Your task to perform on an android device: open app "Instagram" (install if not already installed) and enter user name: "nobler@yahoo.com" and password: "foraging" Image 0: 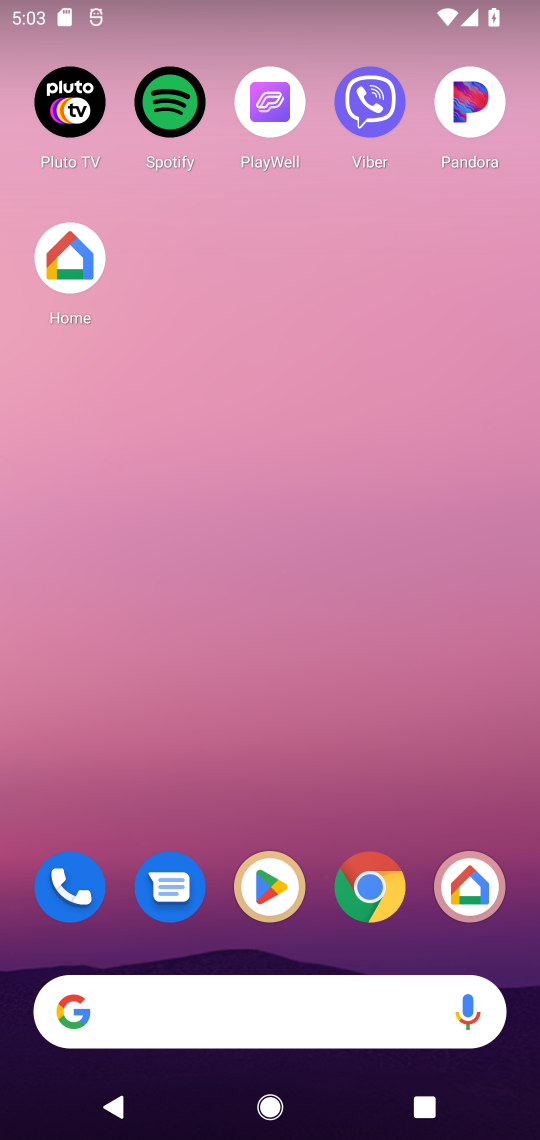
Step 0: click (263, 890)
Your task to perform on an android device: open app "Instagram" (install if not already installed) and enter user name: "nobler@yahoo.com" and password: "foraging" Image 1: 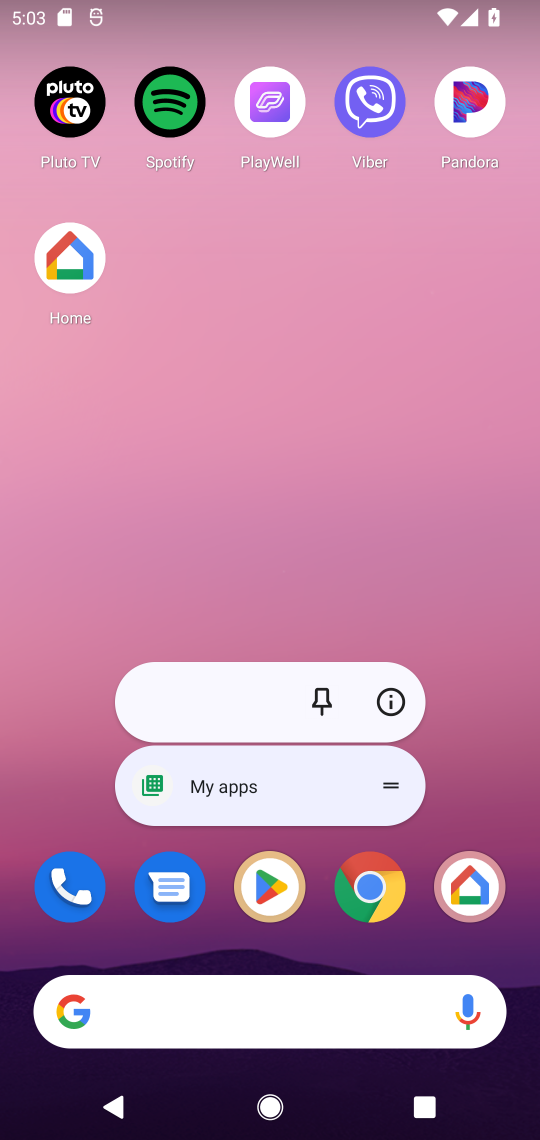
Step 1: click (263, 890)
Your task to perform on an android device: open app "Instagram" (install if not already installed) and enter user name: "nobler@yahoo.com" and password: "foraging" Image 2: 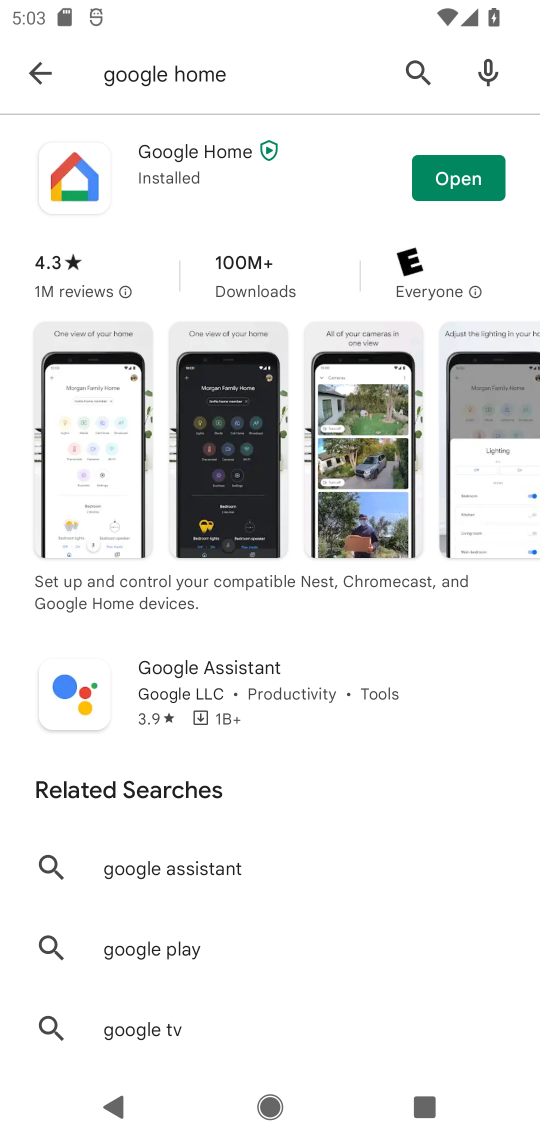
Step 2: click (421, 71)
Your task to perform on an android device: open app "Instagram" (install if not already installed) and enter user name: "nobler@yahoo.com" and password: "foraging" Image 3: 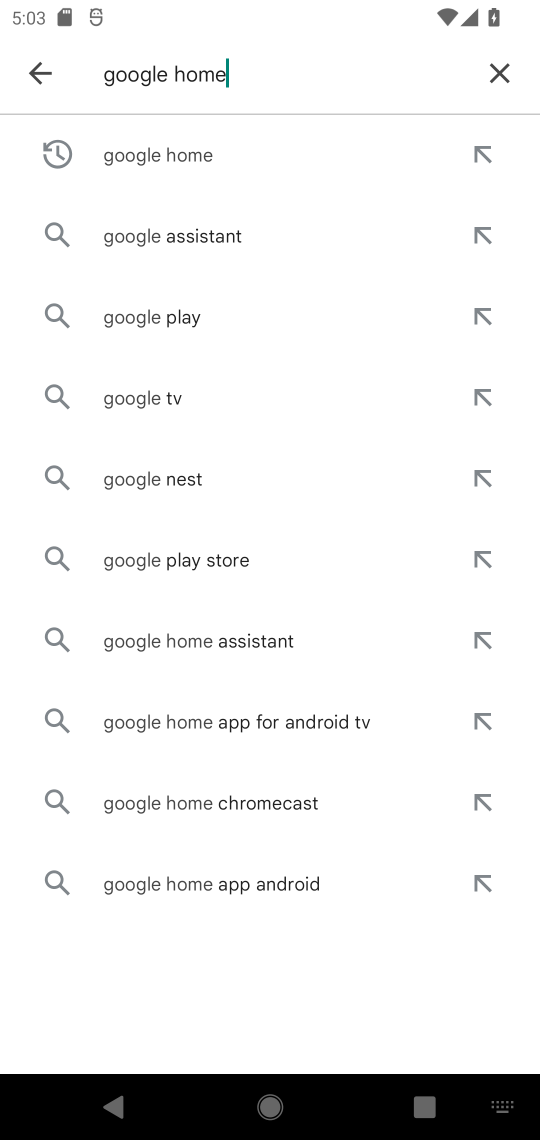
Step 3: click (497, 75)
Your task to perform on an android device: open app "Instagram" (install if not already installed) and enter user name: "nobler@yahoo.com" and password: "foraging" Image 4: 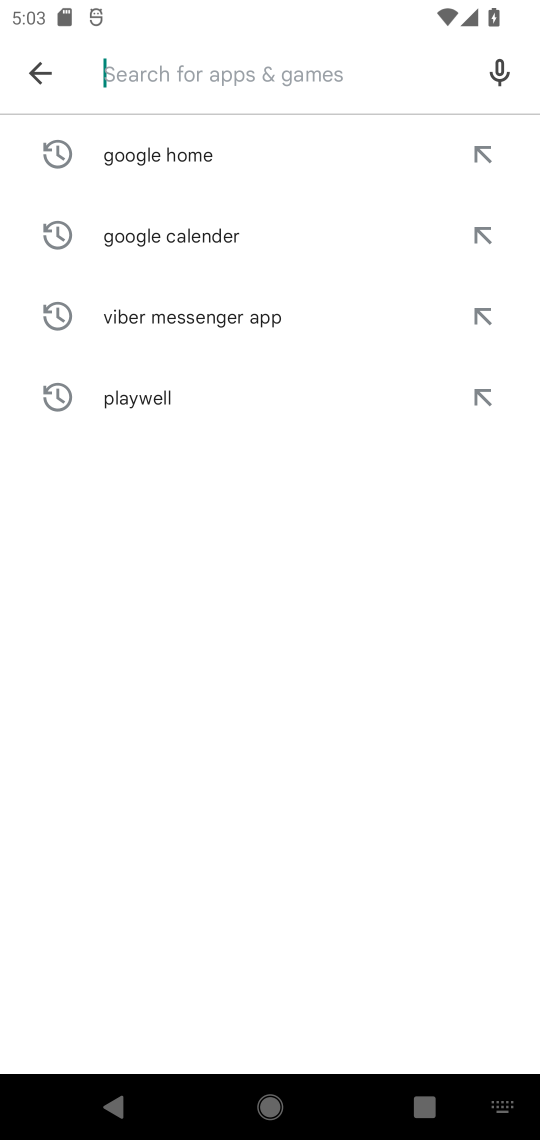
Step 4: type "Instagram"
Your task to perform on an android device: open app "Instagram" (install if not already installed) and enter user name: "nobler@yahoo.com" and password: "foraging" Image 5: 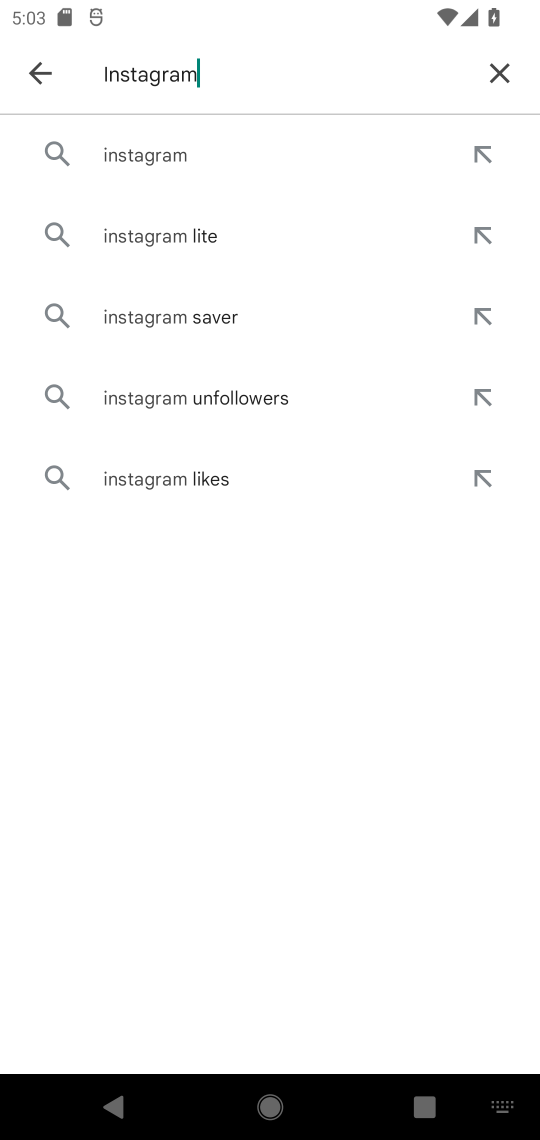
Step 5: click (170, 157)
Your task to perform on an android device: open app "Instagram" (install if not already installed) and enter user name: "nobler@yahoo.com" and password: "foraging" Image 6: 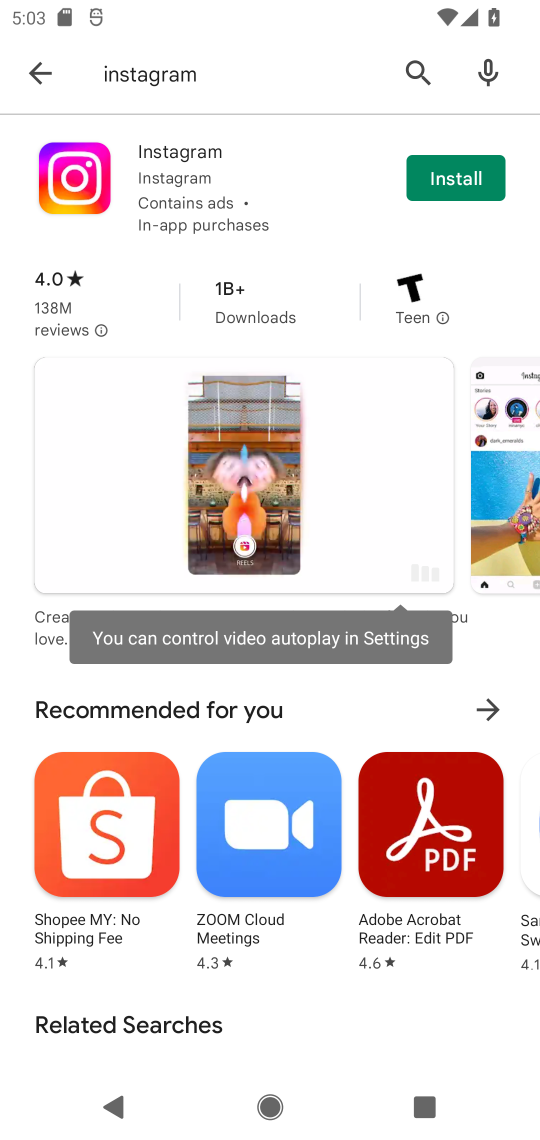
Step 6: click (458, 181)
Your task to perform on an android device: open app "Instagram" (install if not already installed) and enter user name: "nobler@yahoo.com" and password: "foraging" Image 7: 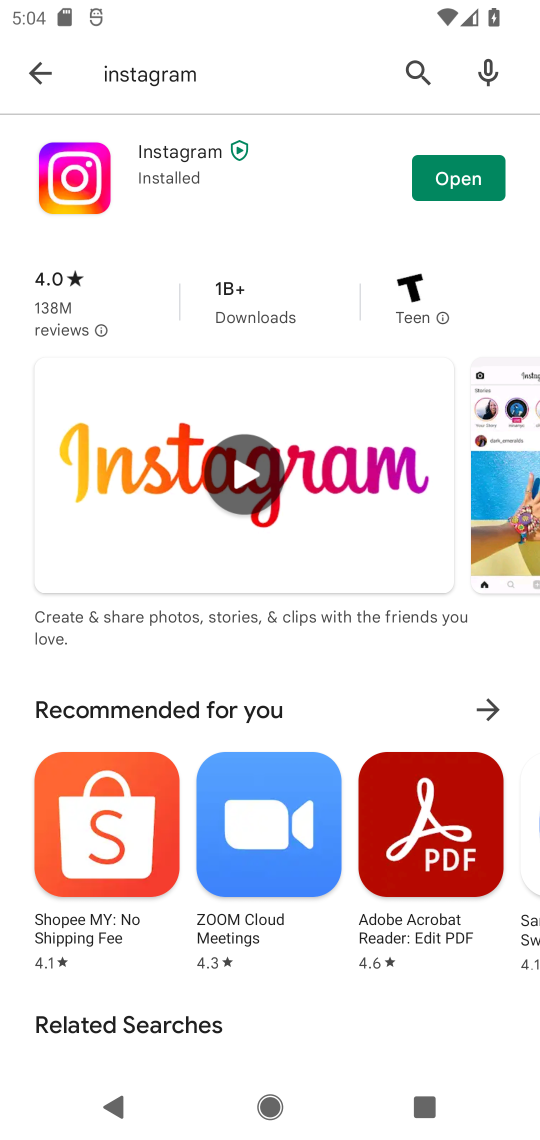
Step 7: click (458, 181)
Your task to perform on an android device: open app "Instagram" (install if not already installed) and enter user name: "nobler@yahoo.com" and password: "foraging" Image 8: 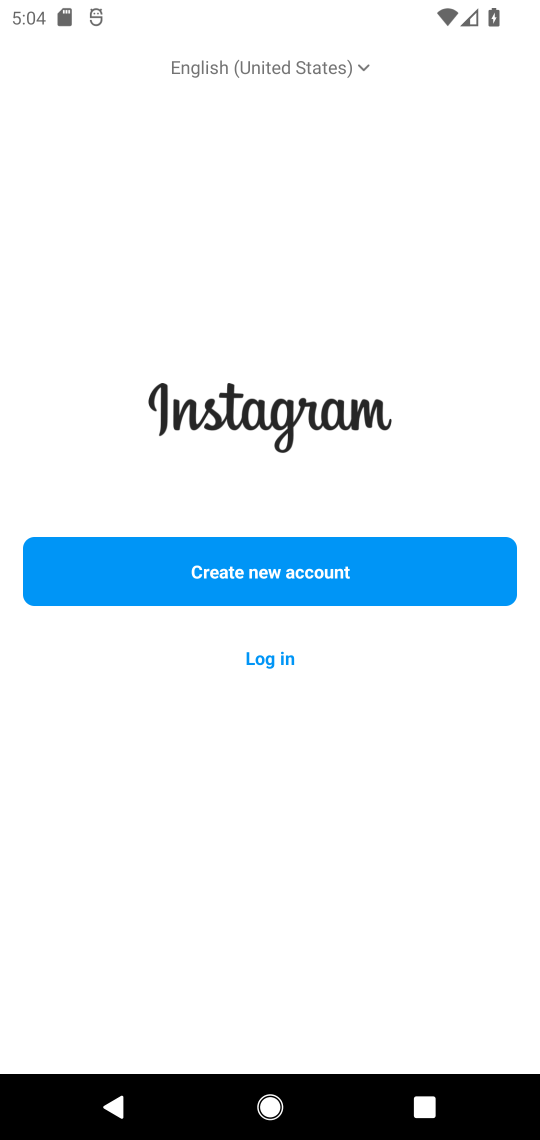
Step 8: click (271, 653)
Your task to perform on an android device: open app "Instagram" (install if not already installed) and enter user name: "nobler@yahoo.com" and password: "foraging" Image 9: 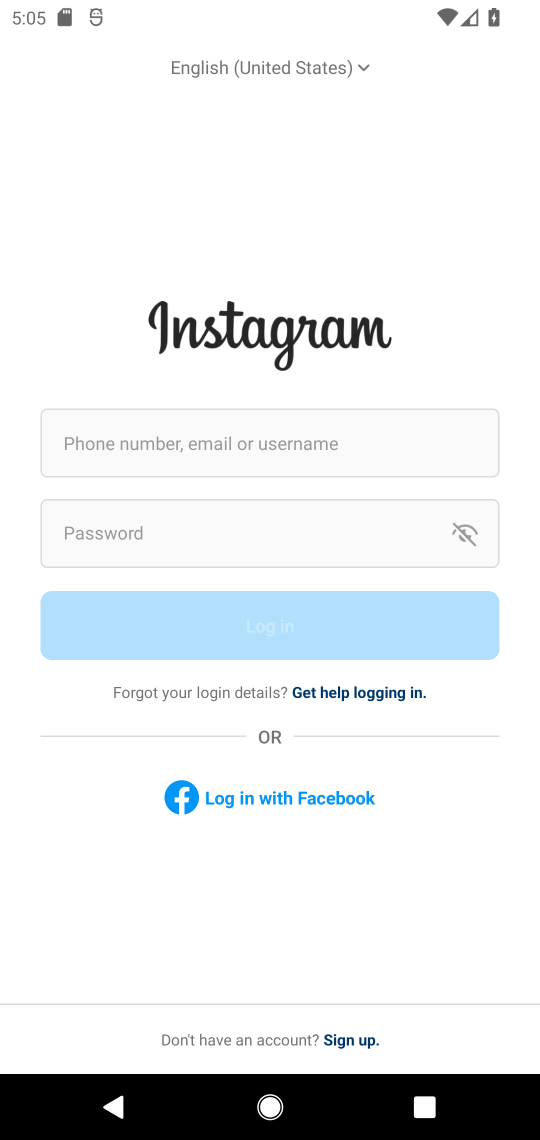
Step 9: click (311, 457)
Your task to perform on an android device: open app "Instagram" (install if not already installed) and enter user name: "nobler@yahoo.com" and password: "foraging" Image 10: 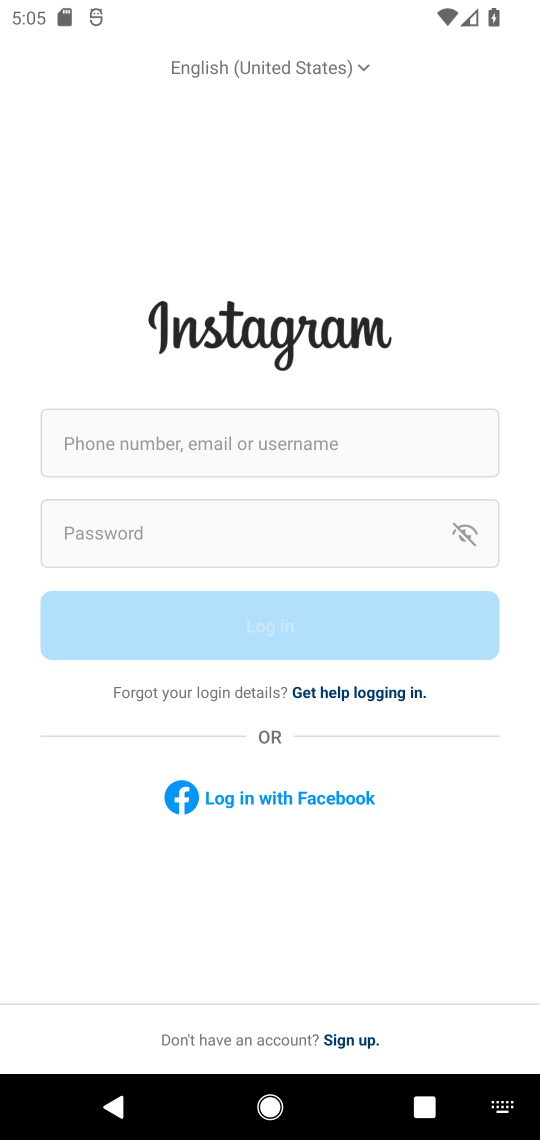
Step 10: type "nobler@yahoo.com"
Your task to perform on an android device: open app "Instagram" (install if not already installed) and enter user name: "nobler@yahoo.com" and password: "foraging" Image 11: 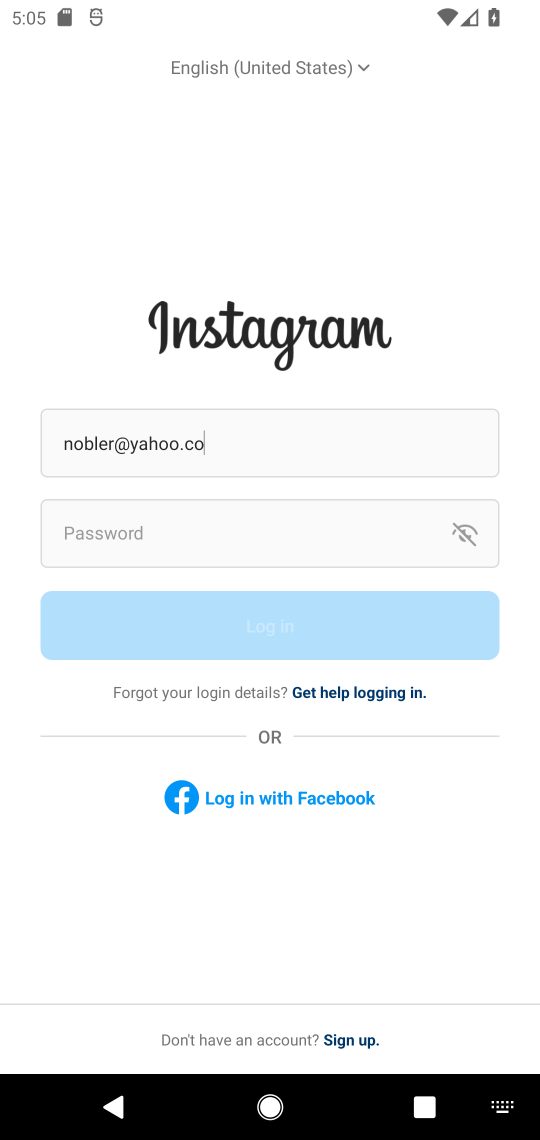
Step 11: type ""
Your task to perform on an android device: open app "Instagram" (install if not already installed) and enter user name: "nobler@yahoo.com" and password: "foraging" Image 12: 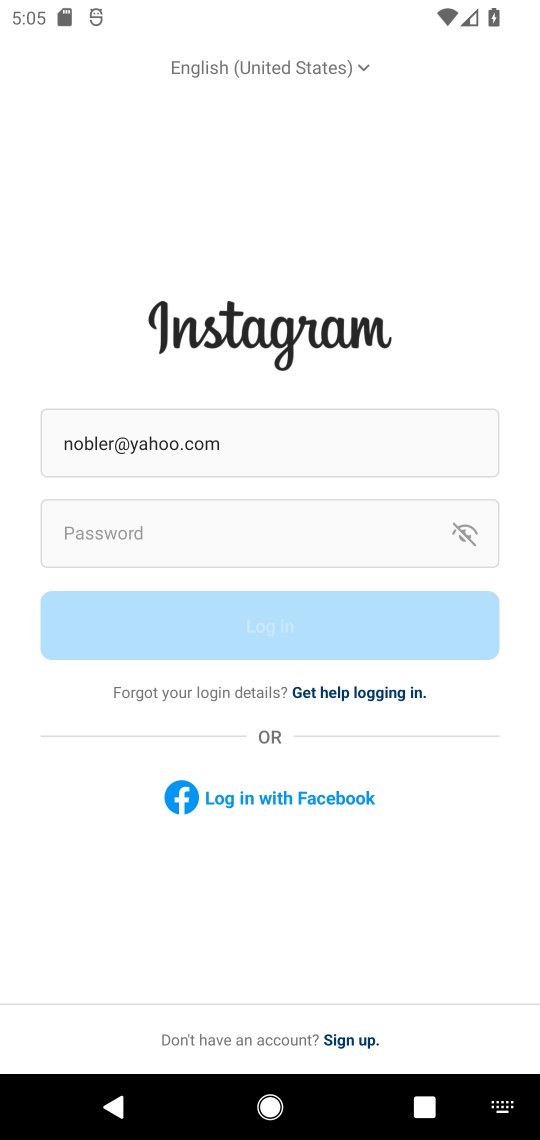
Step 12: click (192, 532)
Your task to perform on an android device: open app "Instagram" (install if not already installed) and enter user name: "nobler@yahoo.com" and password: "foraging" Image 13: 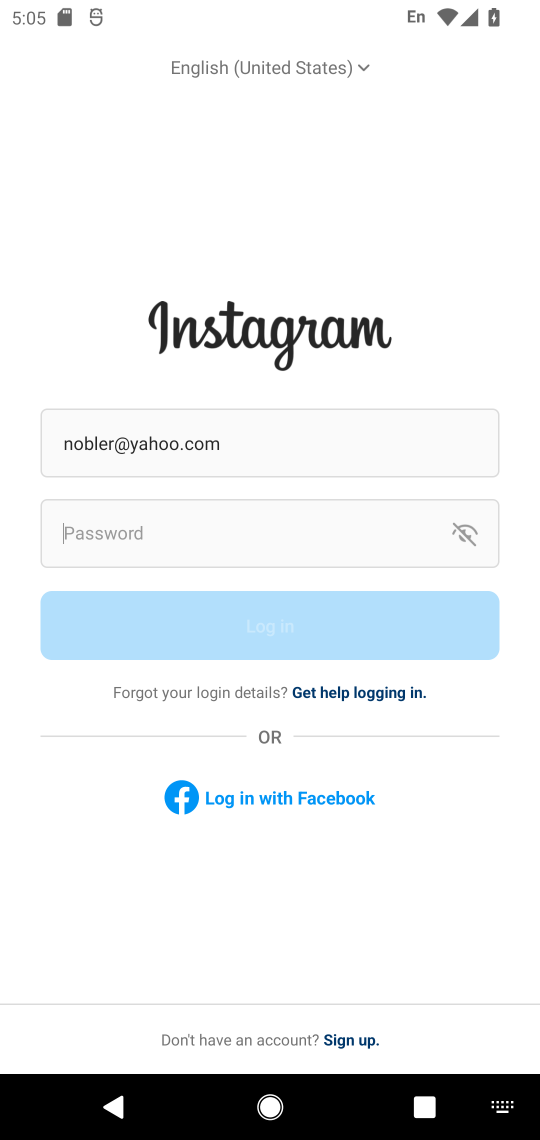
Step 13: type "foraging"
Your task to perform on an android device: open app "Instagram" (install if not already installed) and enter user name: "nobler@yahoo.com" and password: "foraging" Image 14: 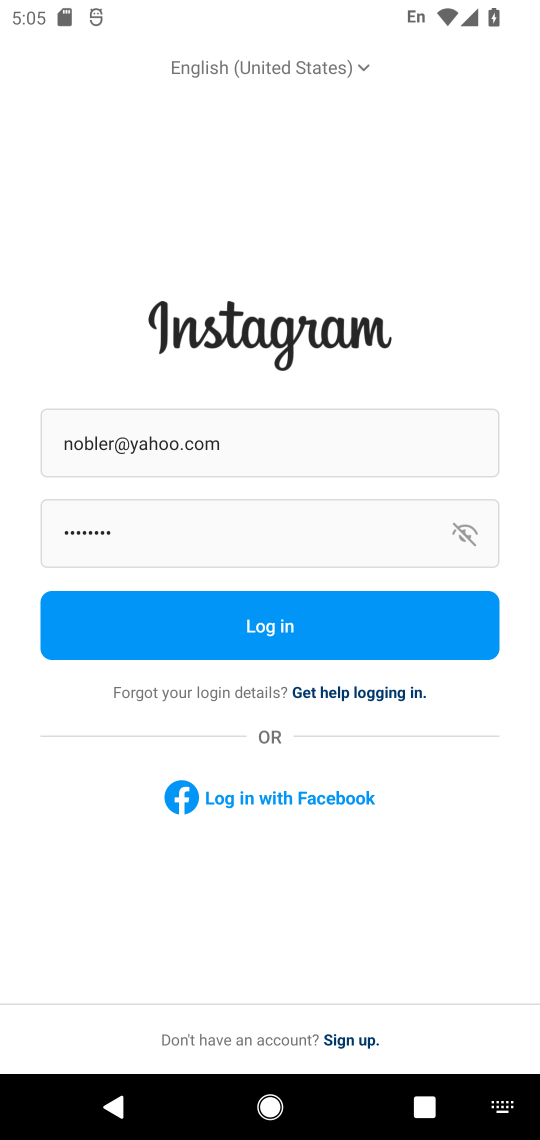
Step 14: task complete